Your task to perform on an android device: Search for Mexican restaurants on Maps Image 0: 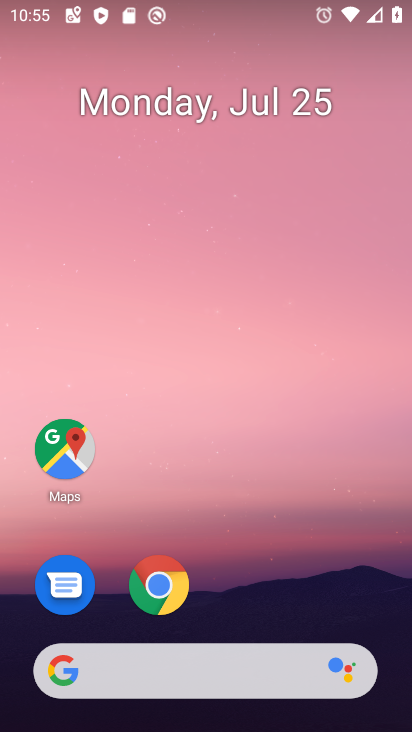
Step 0: drag from (222, 628) to (187, 74)
Your task to perform on an android device: Search for Mexican restaurants on Maps Image 1: 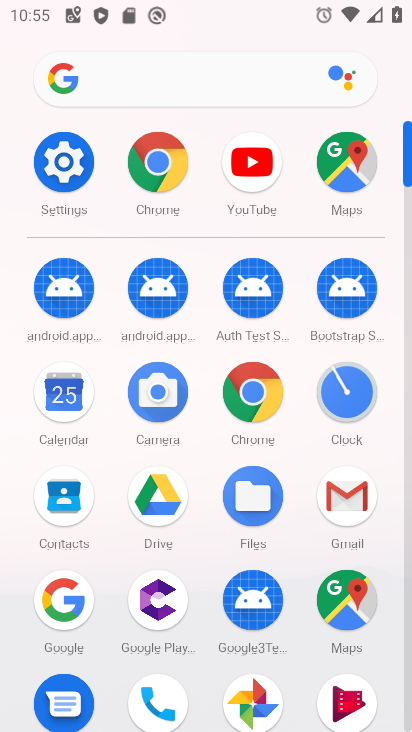
Step 1: click (347, 585)
Your task to perform on an android device: Search for Mexican restaurants on Maps Image 2: 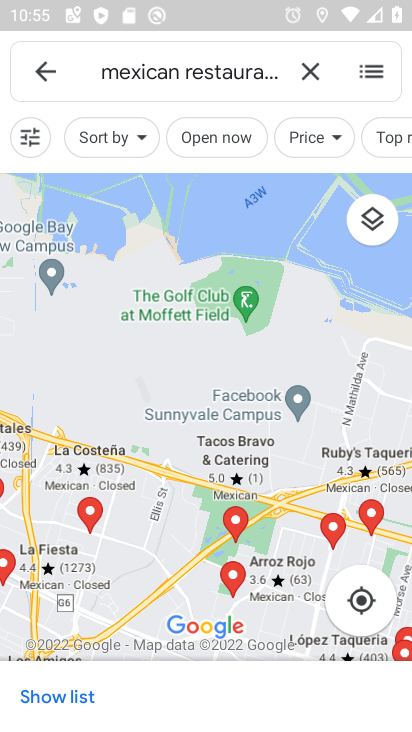
Step 2: task complete